Your task to perform on an android device: check data usage Image 0: 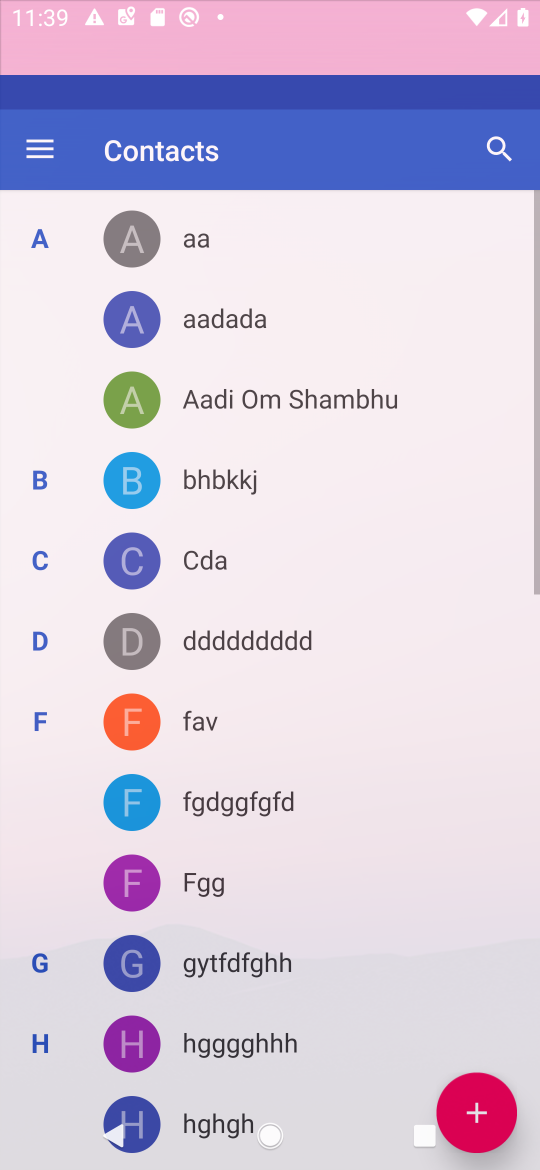
Step 0: press home button
Your task to perform on an android device: check data usage Image 1: 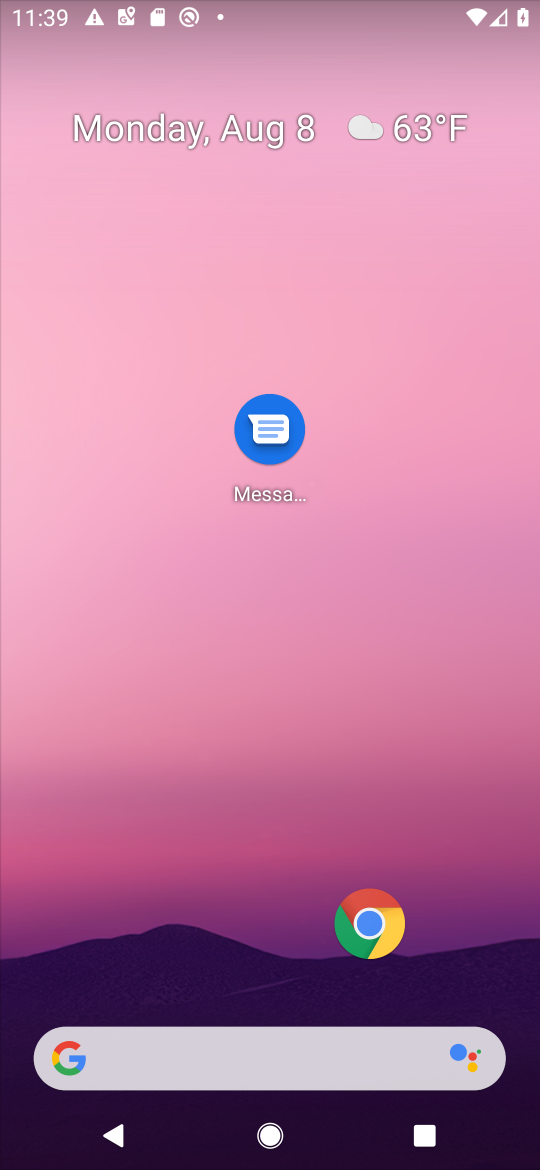
Step 1: drag from (42, 1119) to (362, 423)
Your task to perform on an android device: check data usage Image 2: 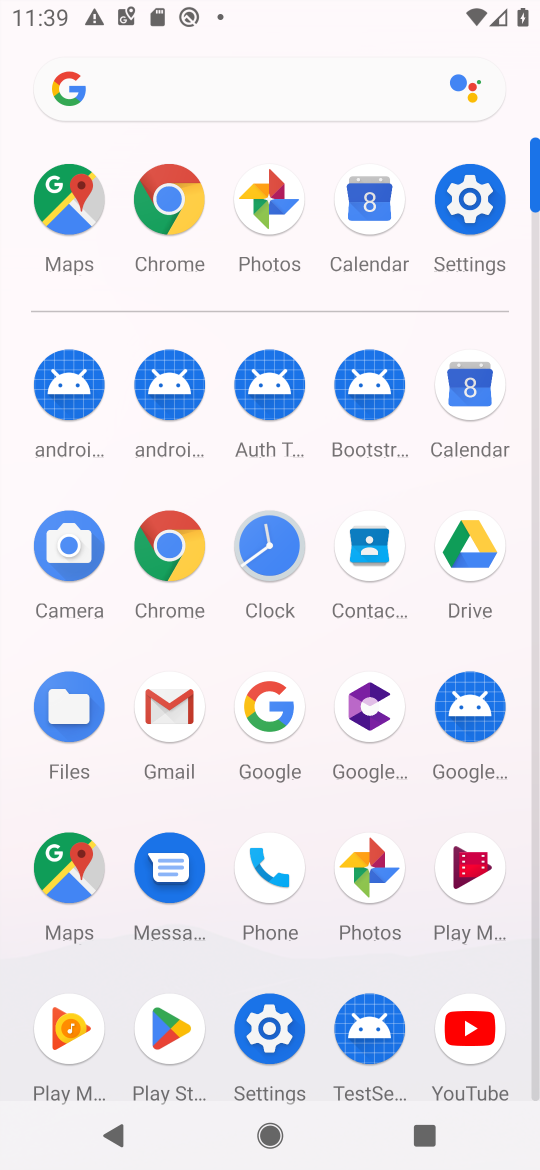
Step 2: click (268, 1022)
Your task to perform on an android device: check data usage Image 3: 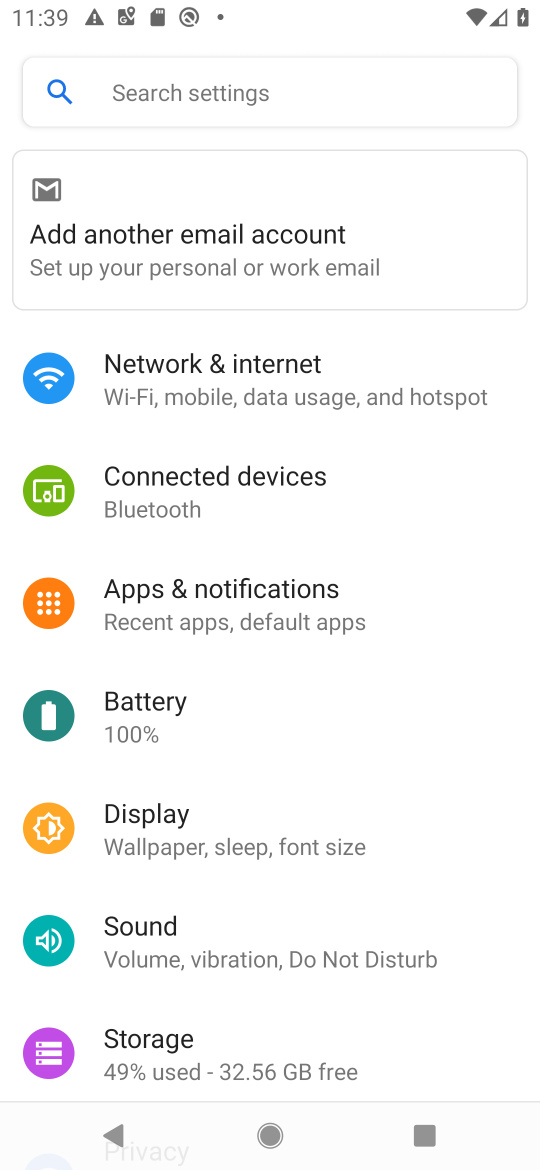
Step 3: click (232, 389)
Your task to perform on an android device: check data usage Image 4: 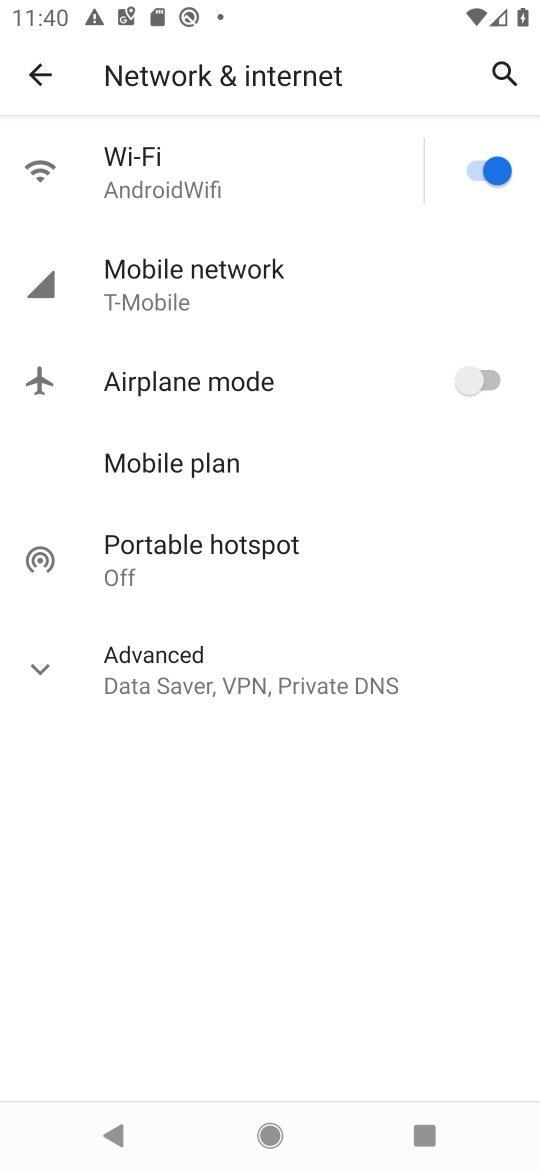
Step 4: click (153, 287)
Your task to perform on an android device: check data usage Image 5: 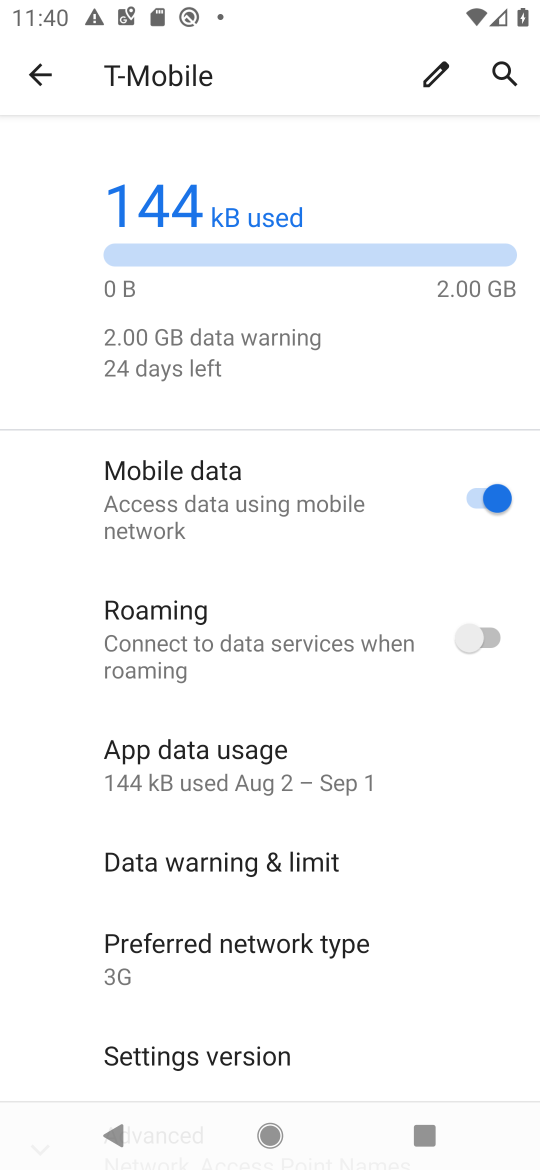
Step 5: task complete